Your task to perform on an android device: When is my next meeting? Image 0: 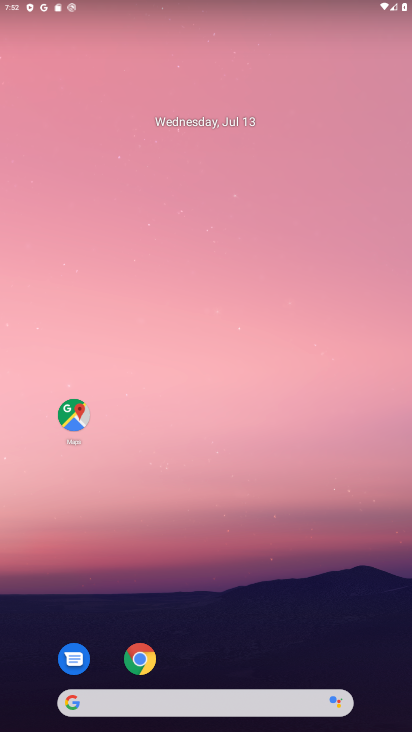
Step 0: drag from (287, 663) to (305, 222)
Your task to perform on an android device: When is my next meeting? Image 1: 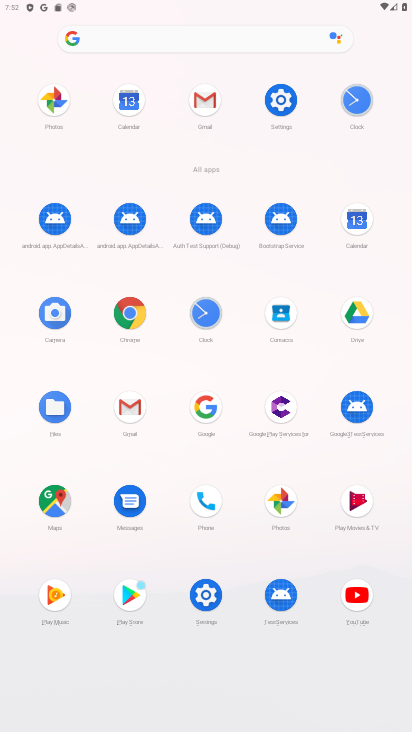
Step 1: click (362, 100)
Your task to perform on an android device: When is my next meeting? Image 2: 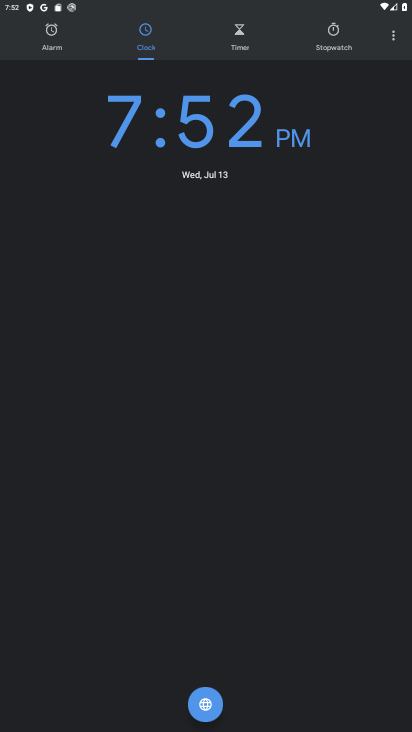
Step 2: press home button
Your task to perform on an android device: When is my next meeting? Image 3: 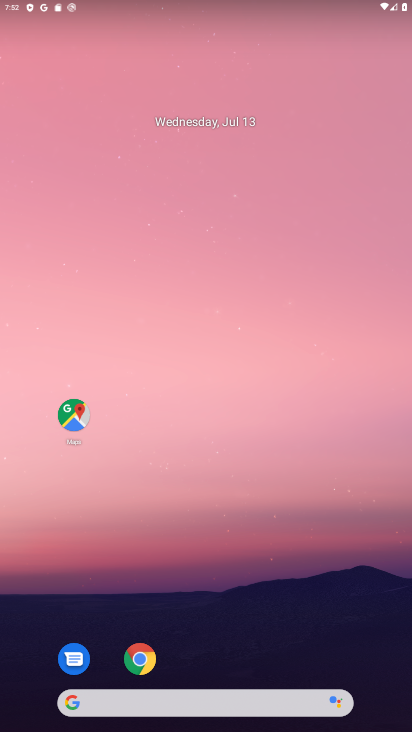
Step 3: drag from (306, 668) to (201, 152)
Your task to perform on an android device: When is my next meeting? Image 4: 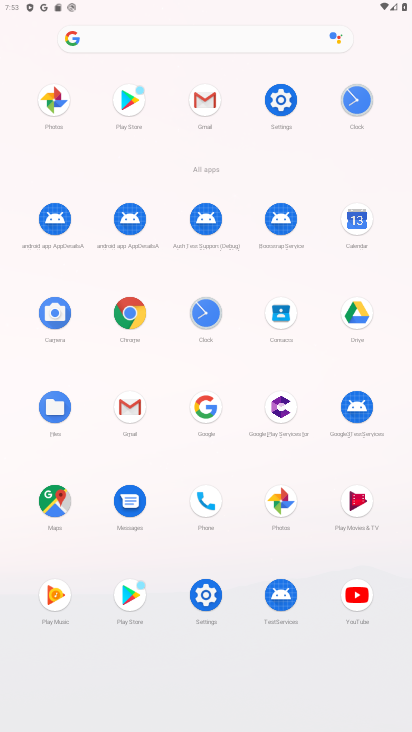
Step 4: click (331, 224)
Your task to perform on an android device: When is my next meeting? Image 5: 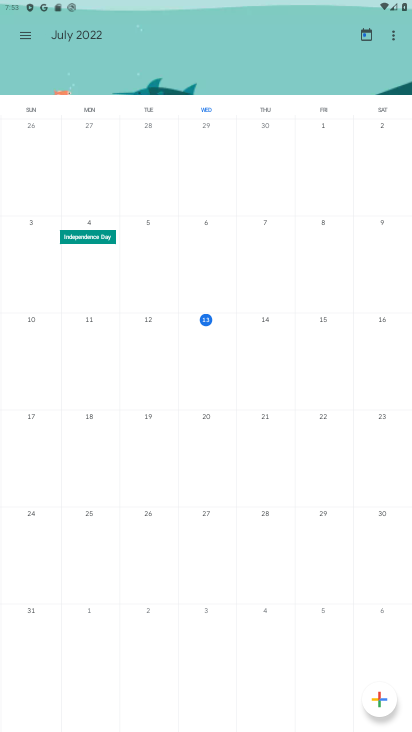
Step 5: task complete